Your task to perform on an android device: Do I have any events this weekend? Image 0: 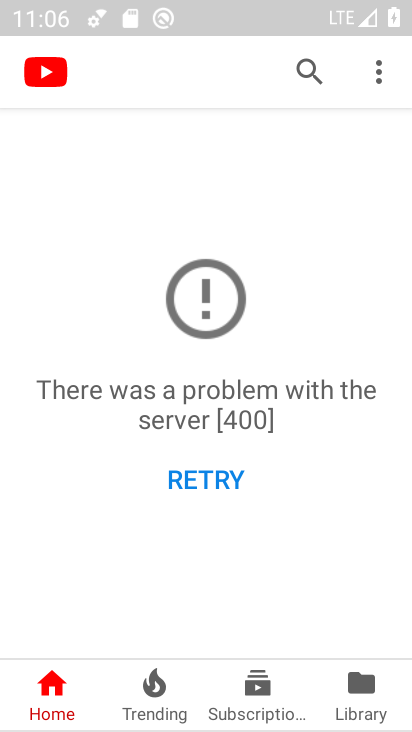
Step 0: press home button
Your task to perform on an android device: Do I have any events this weekend? Image 1: 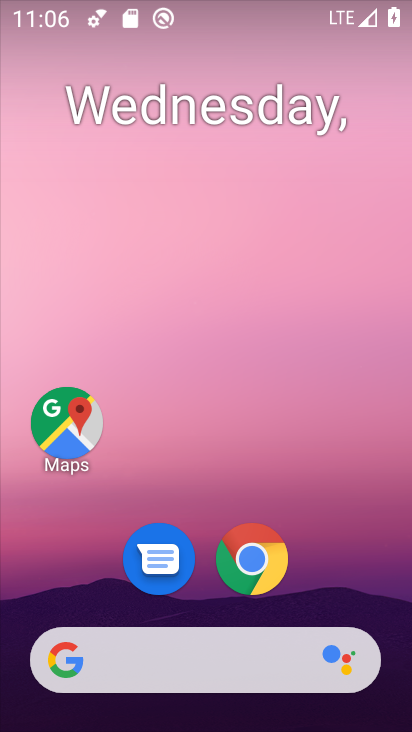
Step 1: drag from (273, 697) to (411, 279)
Your task to perform on an android device: Do I have any events this weekend? Image 2: 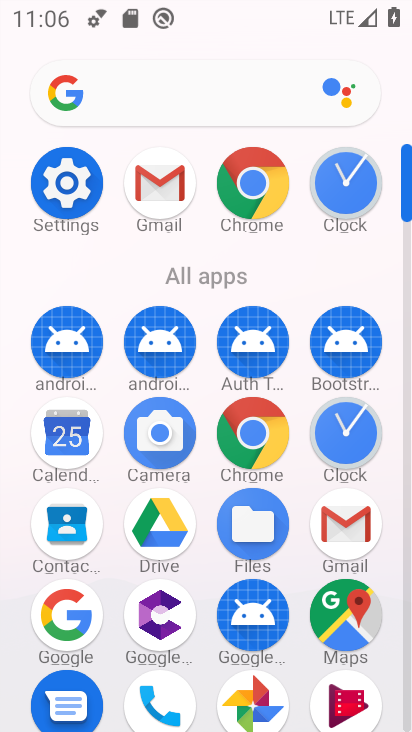
Step 2: click (69, 443)
Your task to perform on an android device: Do I have any events this weekend? Image 3: 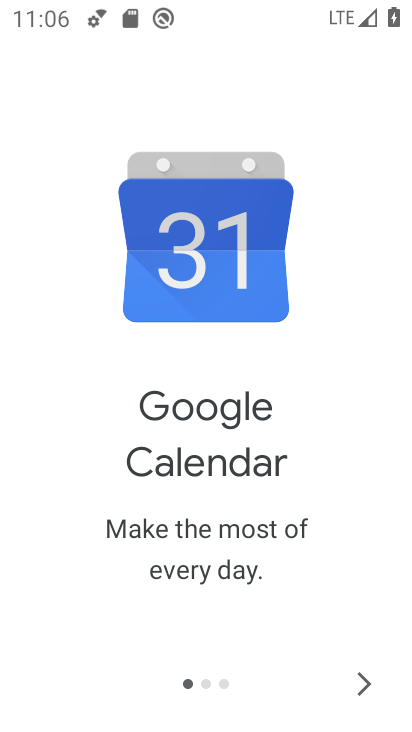
Step 3: click (344, 687)
Your task to perform on an android device: Do I have any events this weekend? Image 4: 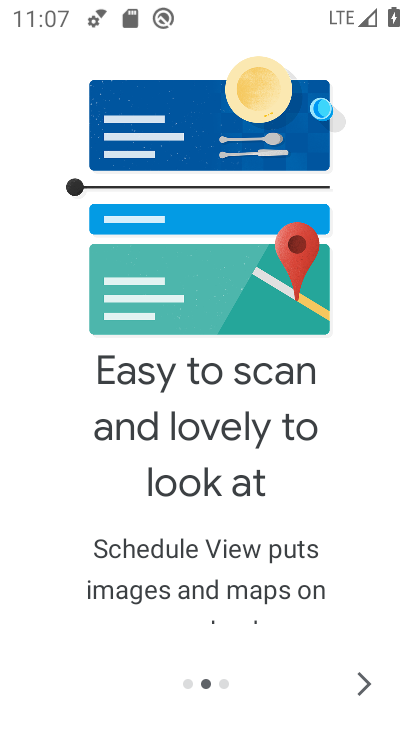
Step 4: click (358, 676)
Your task to perform on an android device: Do I have any events this weekend? Image 5: 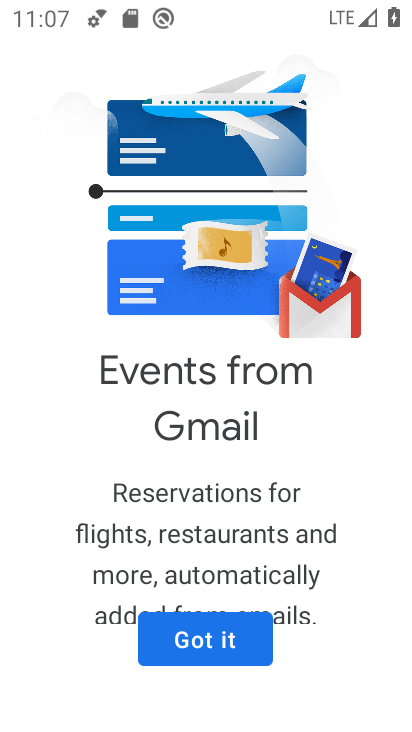
Step 5: click (224, 645)
Your task to perform on an android device: Do I have any events this weekend? Image 6: 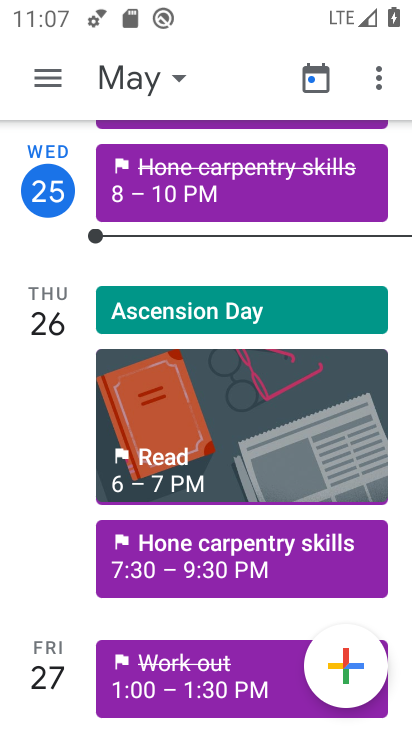
Step 6: click (47, 94)
Your task to perform on an android device: Do I have any events this weekend? Image 7: 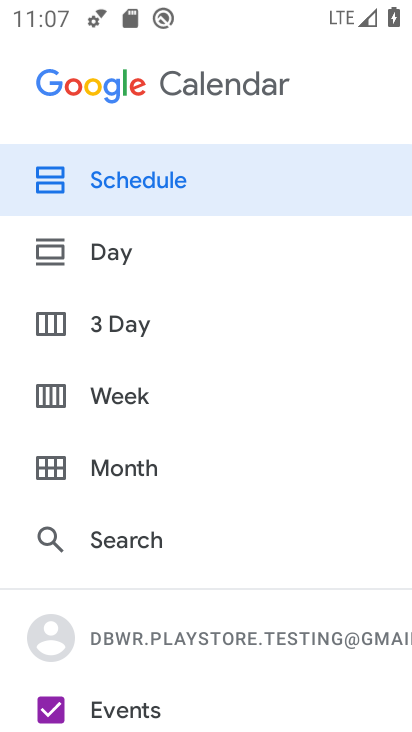
Step 7: click (139, 401)
Your task to perform on an android device: Do I have any events this weekend? Image 8: 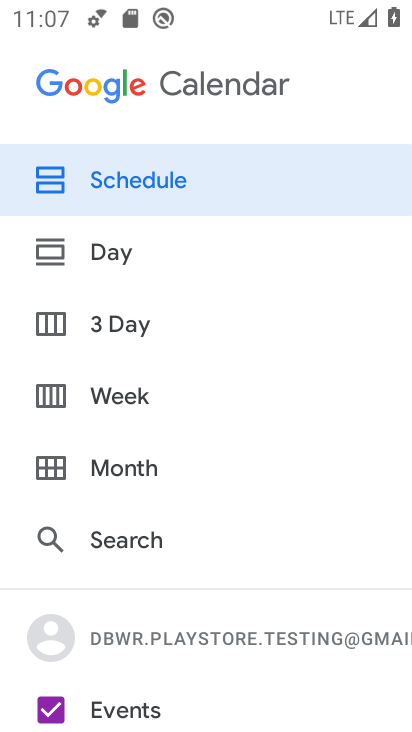
Step 8: click (153, 401)
Your task to perform on an android device: Do I have any events this weekend? Image 9: 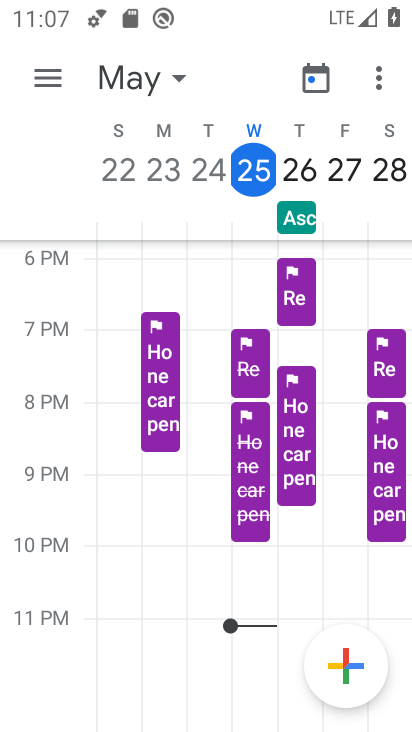
Step 9: task complete